Your task to perform on an android device: turn pop-ups on in chrome Image 0: 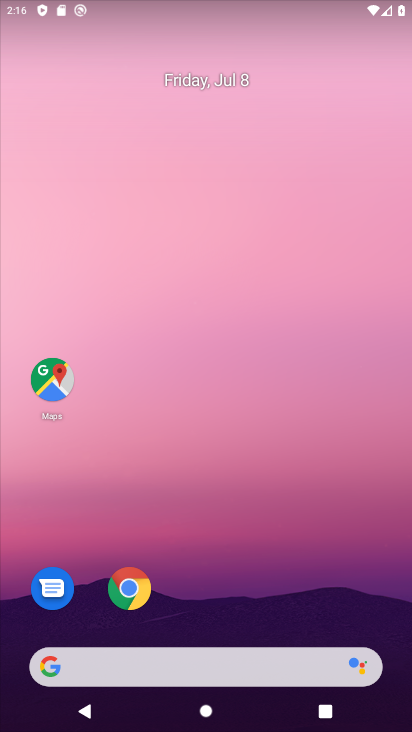
Step 0: press home button
Your task to perform on an android device: turn pop-ups on in chrome Image 1: 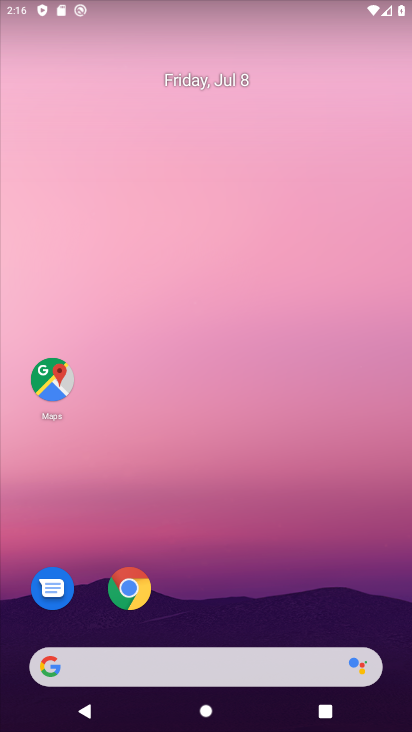
Step 1: click (123, 590)
Your task to perform on an android device: turn pop-ups on in chrome Image 2: 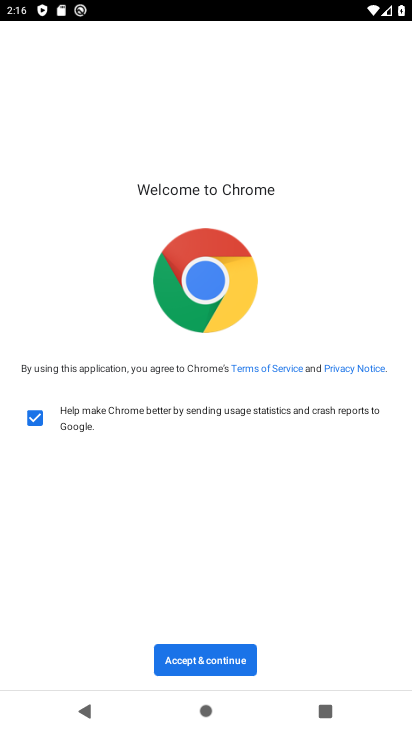
Step 2: click (189, 659)
Your task to perform on an android device: turn pop-ups on in chrome Image 3: 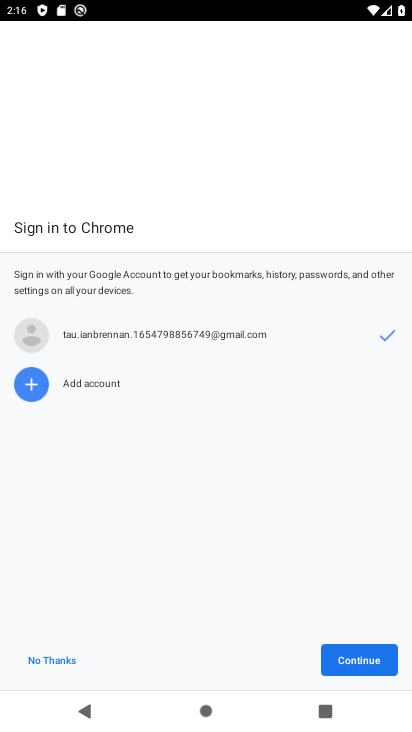
Step 3: click (393, 653)
Your task to perform on an android device: turn pop-ups on in chrome Image 4: 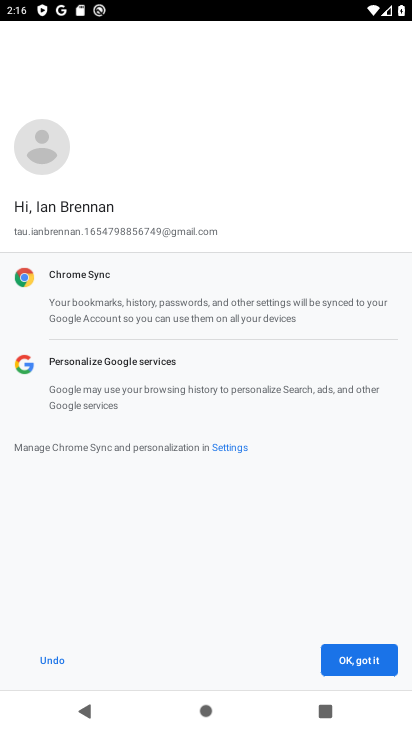
Step 4: click (369, 652)
Your task to perform on an android device: turn pop-ups on in chrome Image 5: 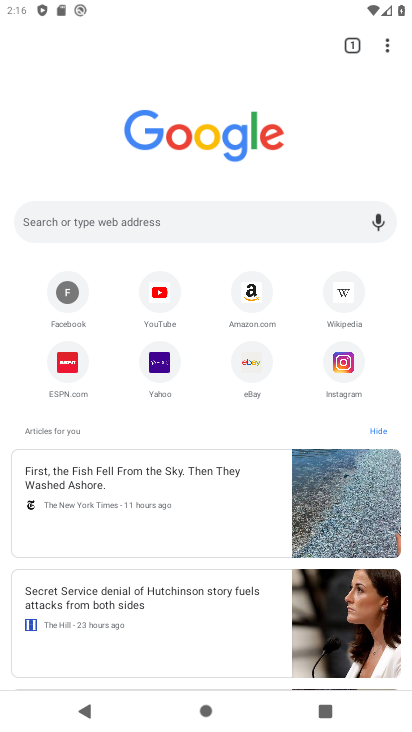
Step 5: click (390, 46)
Your task to perform on an android device: turn pop-ups on in chrome Image 6: 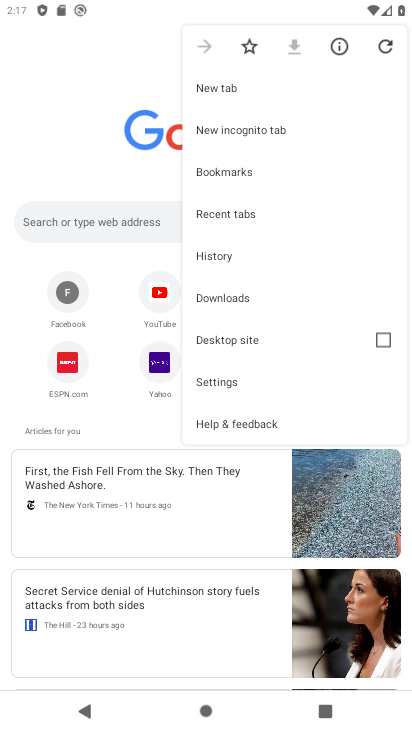
Step 6: click (222, 377)
Your task to perform on an android device: turn pop-ups on in chrome Image 7: 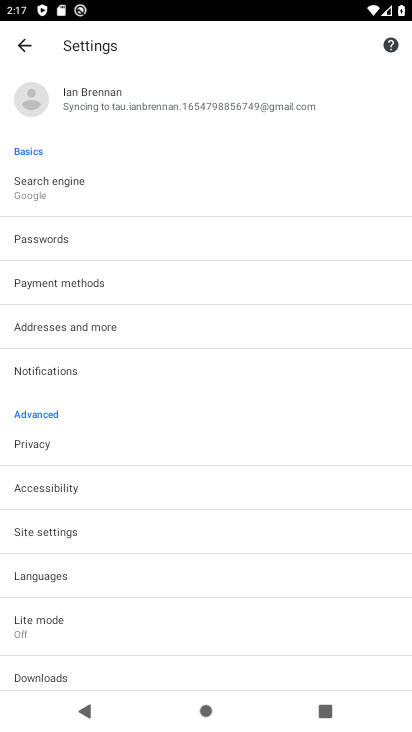
Step 7: click (68, 534)
Your task to perform on an android device: turn pop-ups on in chrome Image 8: 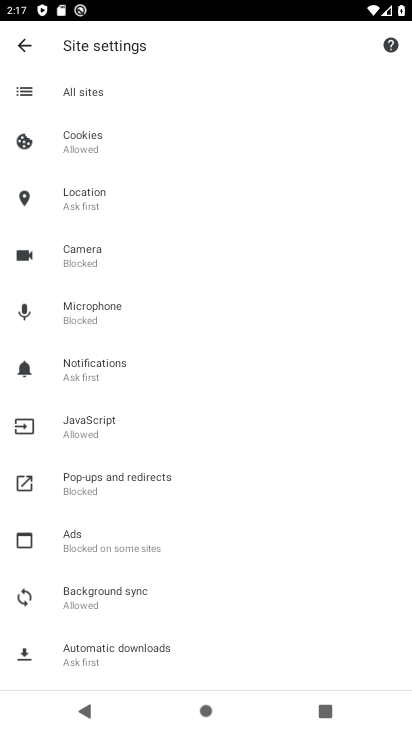
Step 8: click (136, 489)
Your task to perform on an android device: turn pop-ups on in chrome Image 9: 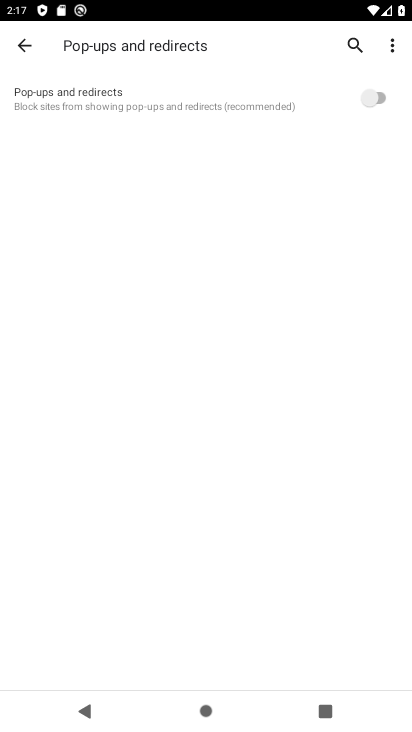
Step 9: click (379, 106)
Your task to perform on an android device: turn pop-ups on in chrome Image 10: 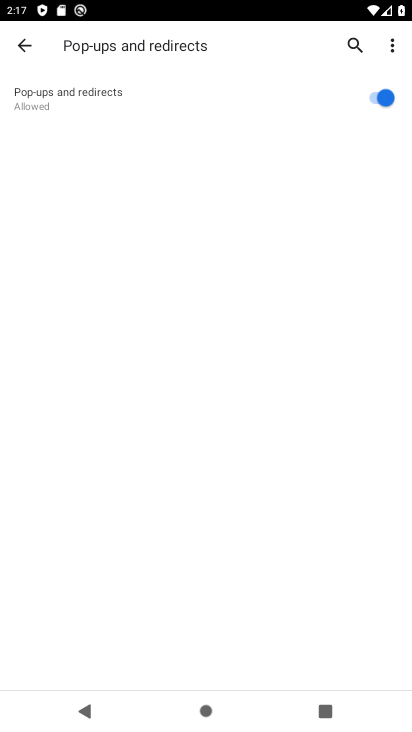
Step 10: task complete